Your task to perform on an android device: Go to accessibility settings Image 0: 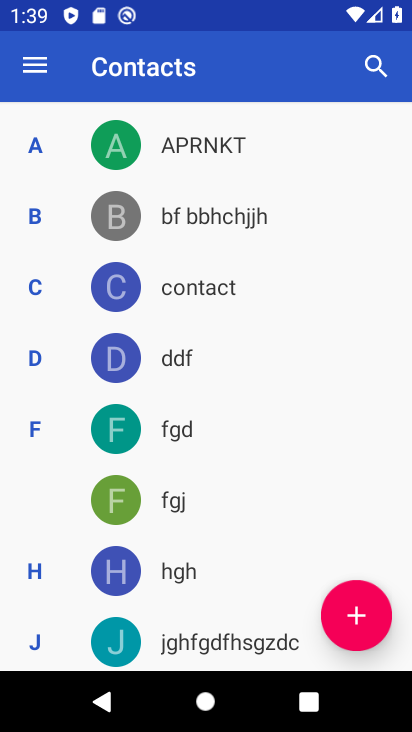
Step 0: press home button
Your task to perform on an android device: Go to accessibility settings Image 1: 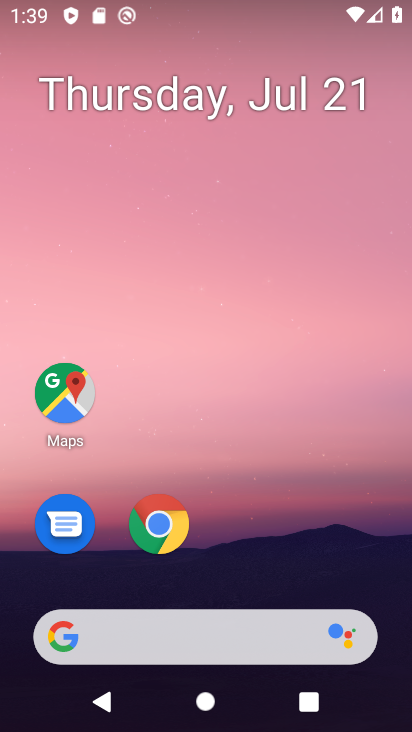
Step 1: drag from (260, 554) to (266, 63)
Your task to perform on an android device: Go to accessibility settings Image 2: 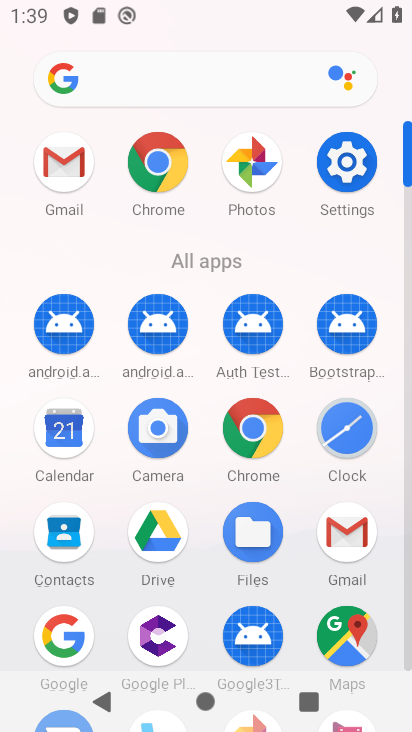
Step 2: click (346, 163)
Your task to perform on an android device: Go to accessibility settings Image 3: 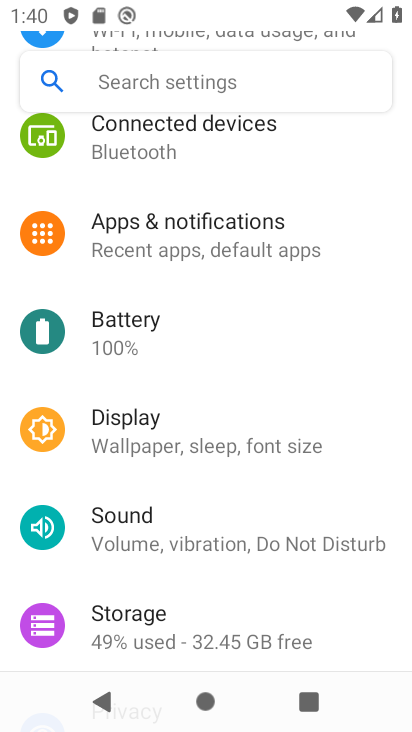
Step 3: drag from (242, 590) to (219, 79)
Your task to perform on an android device: Go to accessibility settings Image 4: 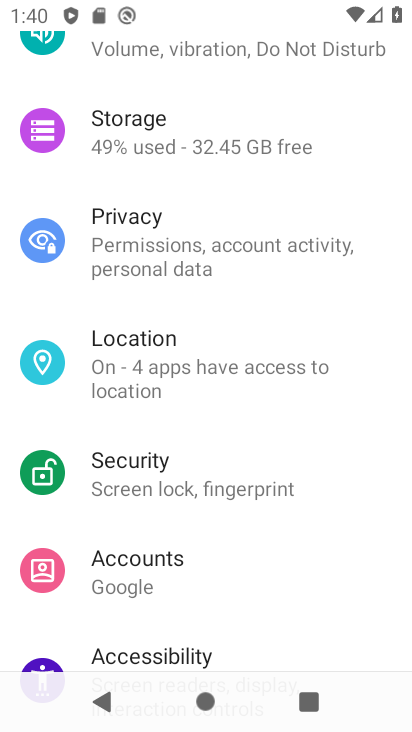
Step 4: drag from (205, 558) to (187, 258)
Your task to perform on an android device: Go to accessibility settings Image 5: 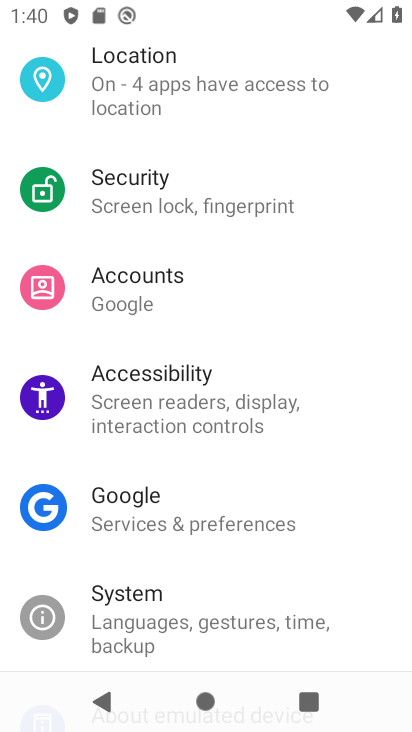
Step 5: click (174, 395)
Your task to perform on an android device: Go to accessibility settings Image 6: 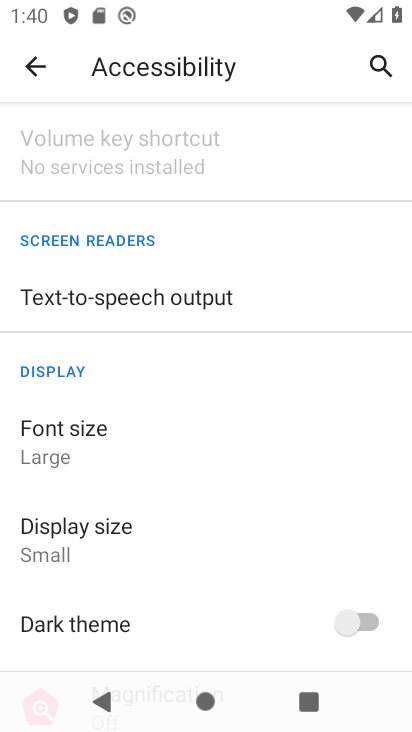
Step 6: task complete